Your task to perform on an android device: delete the emails in spam in the gmail app Image 0: 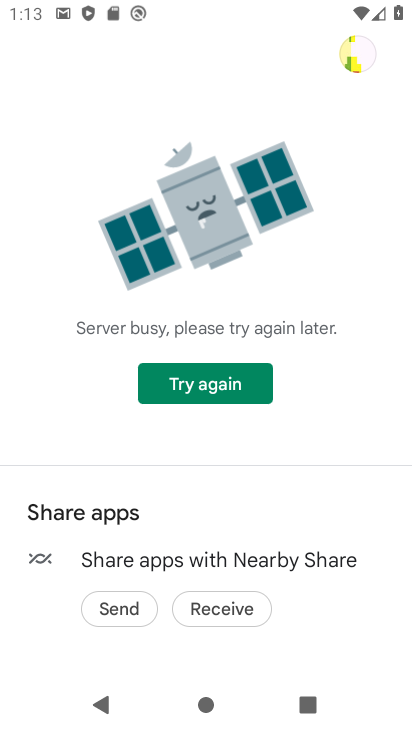
Step 0: press home button
Your task to perform on an android device: delete the emails in spam in the gmail app Image 1: 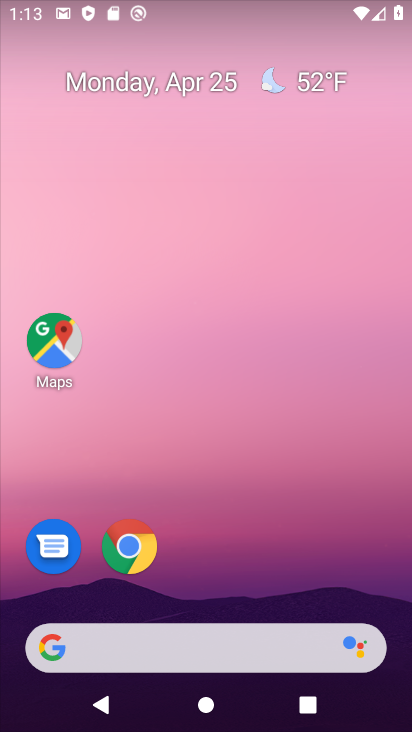
Step 1: drag from (180, 474) to (186, 38)
Your task to perform on an android device: delete the emails in spam in the gmail app Image 2: 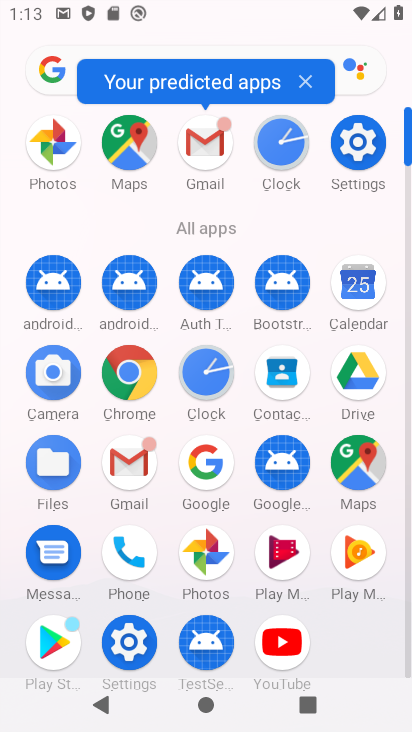
Step 2: click (134, 476)
Your task to perform on an android device: delete the emails in spam in the gmail app Image 3: 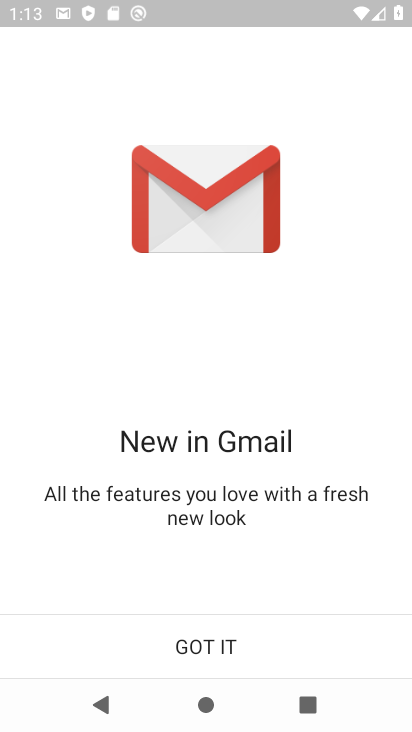
Step 3: click (272, 647)
Your task to perform on an android device: delete the emails in spam in the gmail app Image 4: 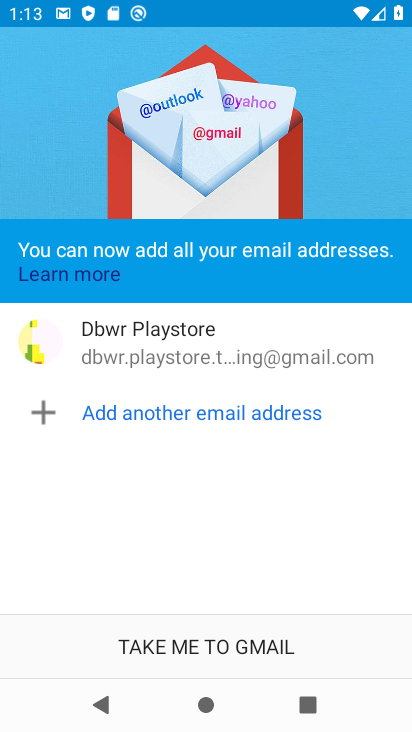
Step 4: click (238, 650)
Your task to perform on an android device: delete the emails in spam in the gmail app Image 5: 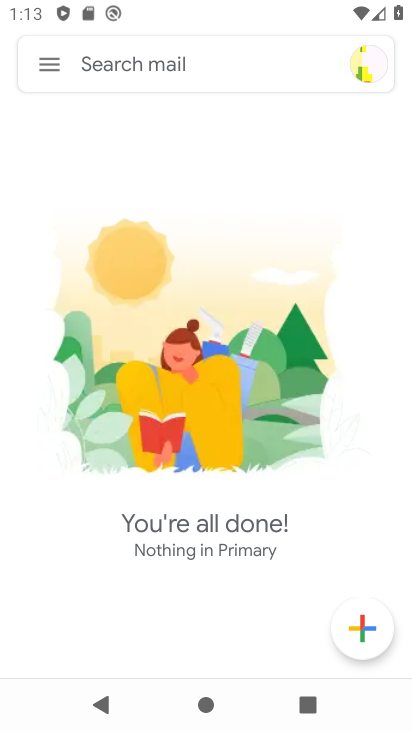
Step 5: click (41, 58)
Your task to perform on an android device: delete the emails in spam in the gmail app Image 6: 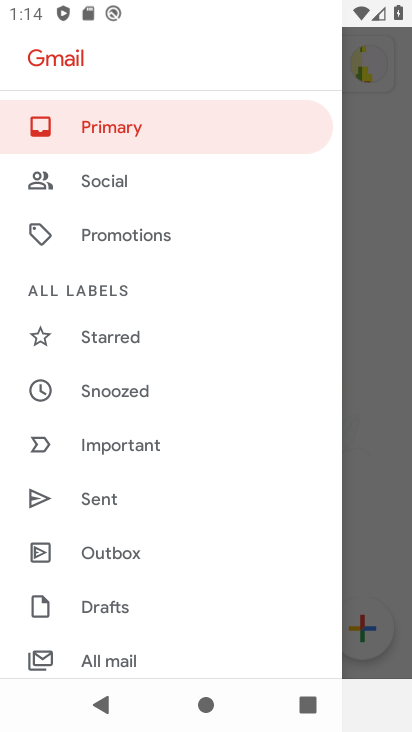
Step 6: drag from (150, 592) to (130, 50)
Your task to perform on an android device: delete the emails in spam in the gmail app Image 7: 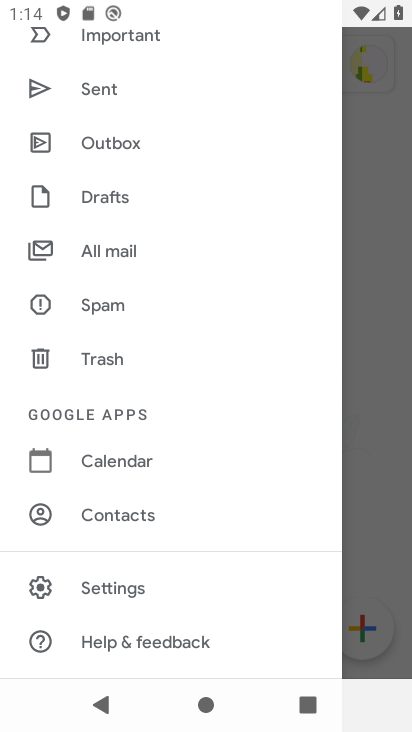
Step 7: click (96, 305)
Your task to perform on an android device: delete the emails in spam in the gmail app Image 8: 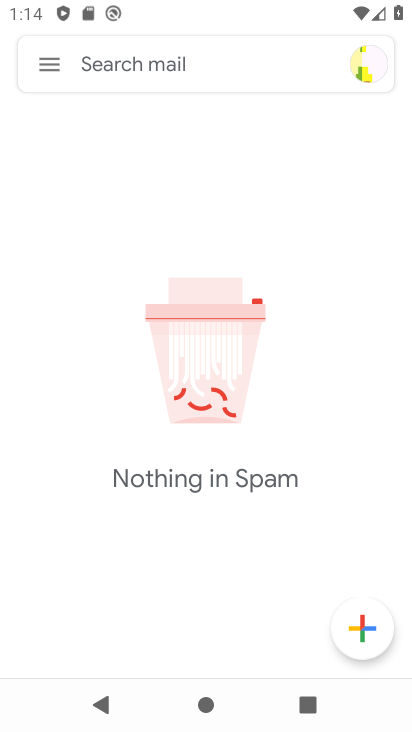
Step 8: task complete